Your task to perform on an android device: Open maps Image 0: 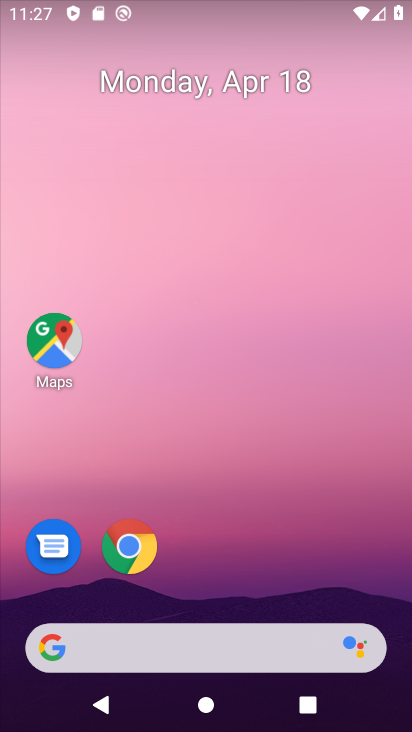
Step 0: click (54, 370)
Your task to perform on an android device: Open maps Image 1: 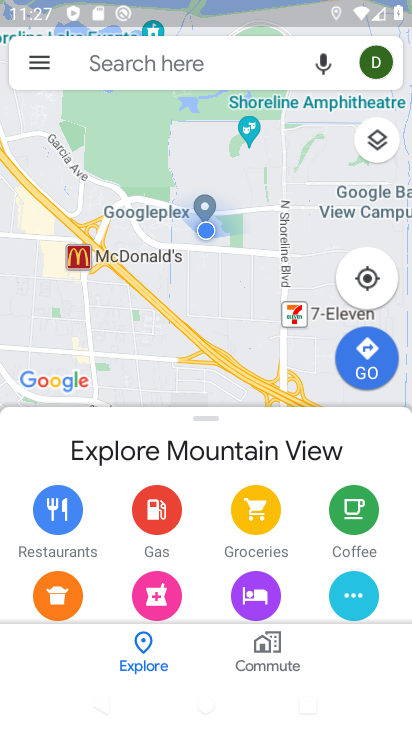
Step 1: task complete